Your task to perform on an android device: Is it going to rain today? Image 0: 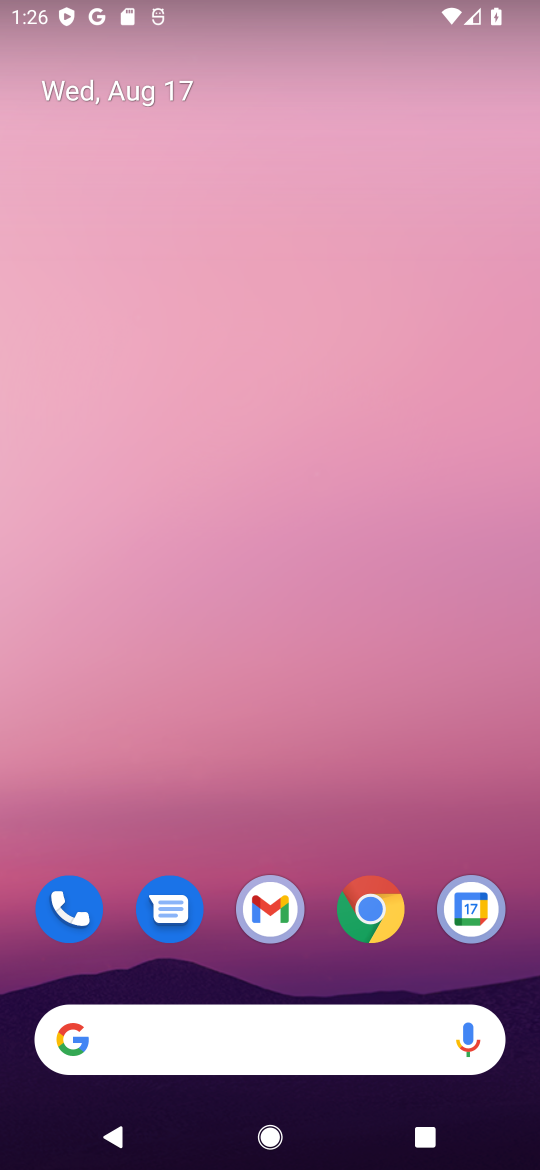
Step 0: click (61, 1036)
Your task to perform on an android device: Is it going to rain today? Image 1: 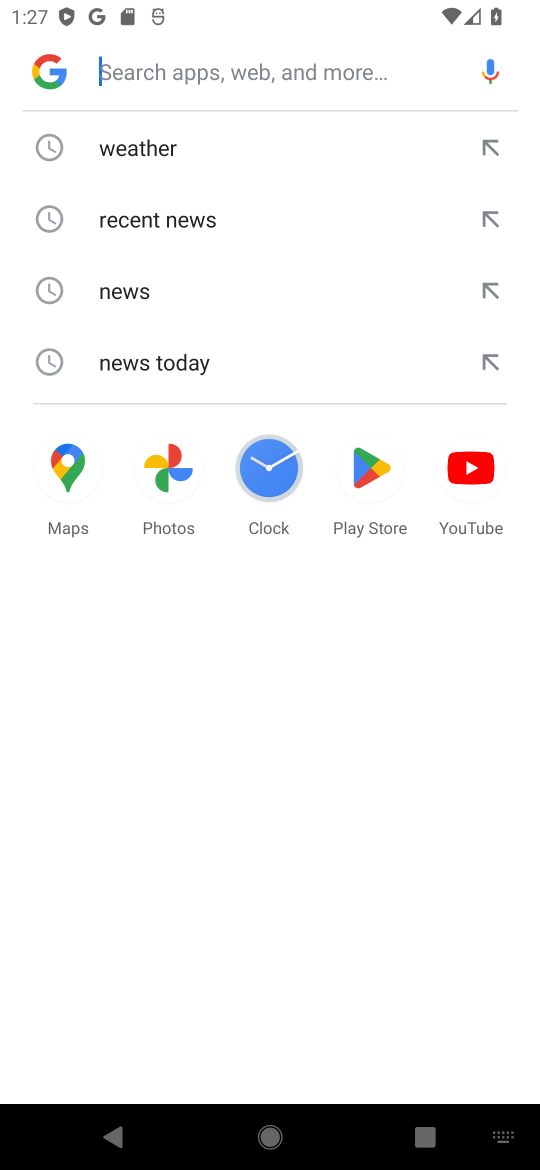
Step 1: click (114, 153)
Your task to perform on an android device: Is it going to rain today? Image 2: 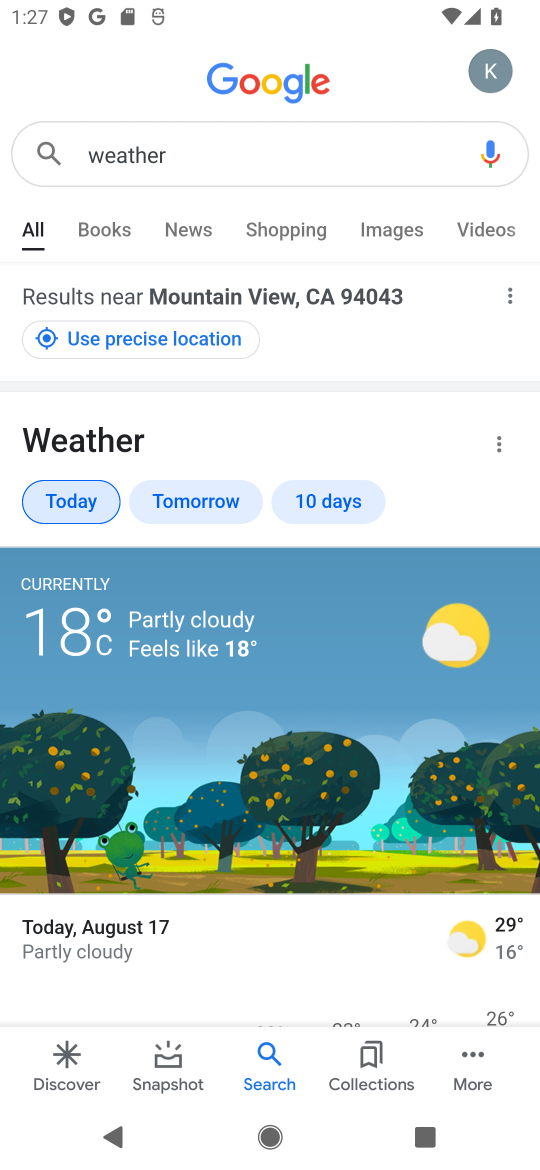
Step 2: task complete